Your task to perform on an android device: check android version Image 0: 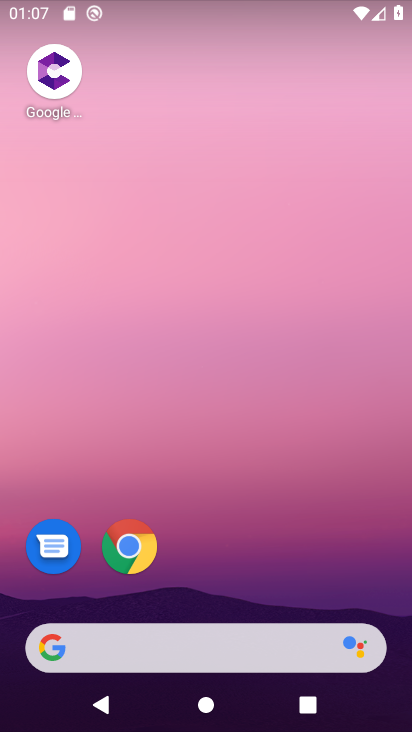
Step 0: drag from (253, 582) to (235, 74)
Your task to perform on an android device: check android version Image 1: 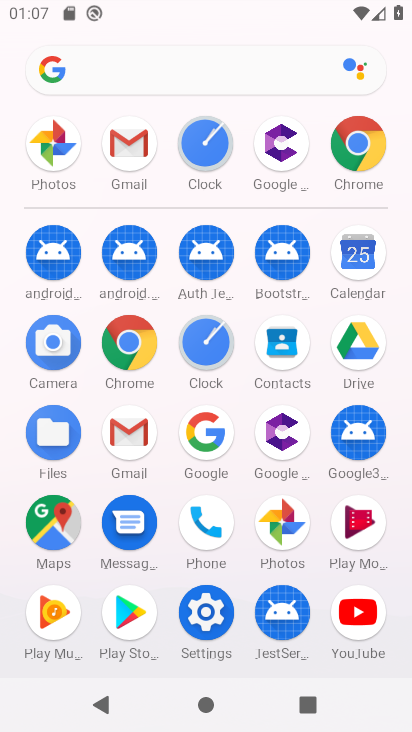
Step 1: click (197, 602)
Your task to perform on an android device: check android version Image 2: 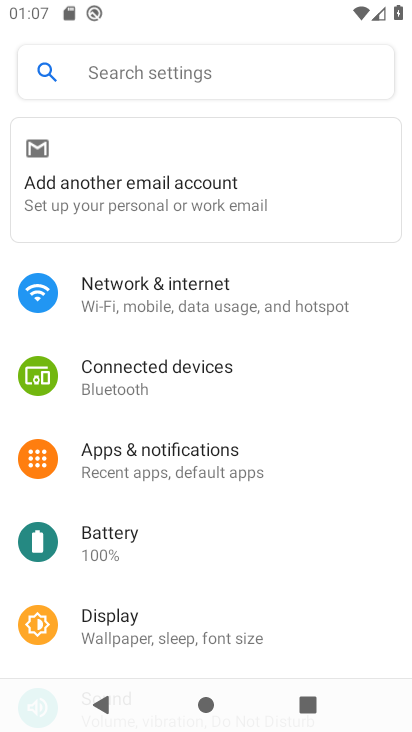
Step 2: drag from (174, 579) to (71, 289)
Your task to perform on an android device: check android version Image 3: 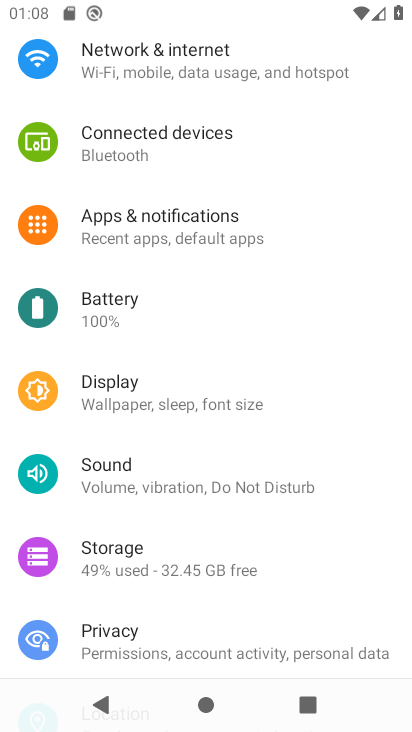
Step 3: drag from (185, 590) to (163, 437)
Your task to perform on an android device: check android version Image 4: 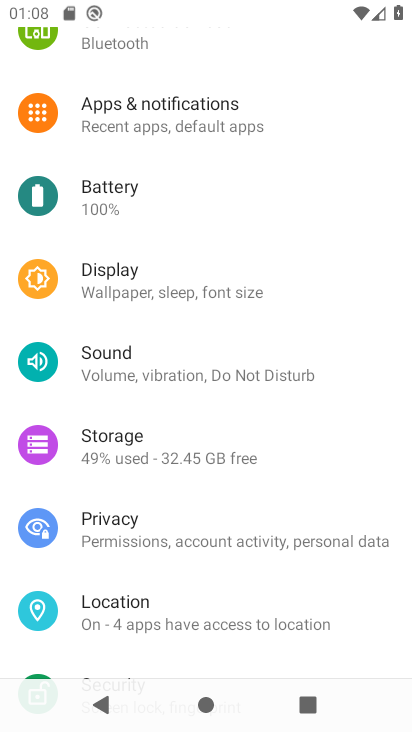
Step 4: drag from (206, 604) to (161, 336)
Your task to perform on an android device: check android version Image 5: 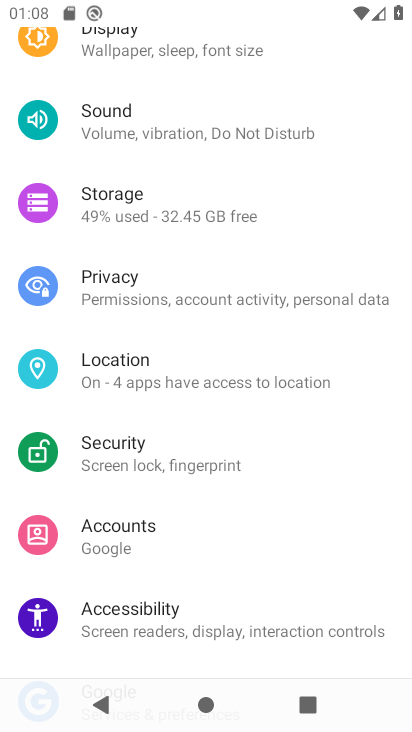
Step 5: drag from (176, 598) to (135, 329)
Your task to perform on an android device: check android version Image 6: 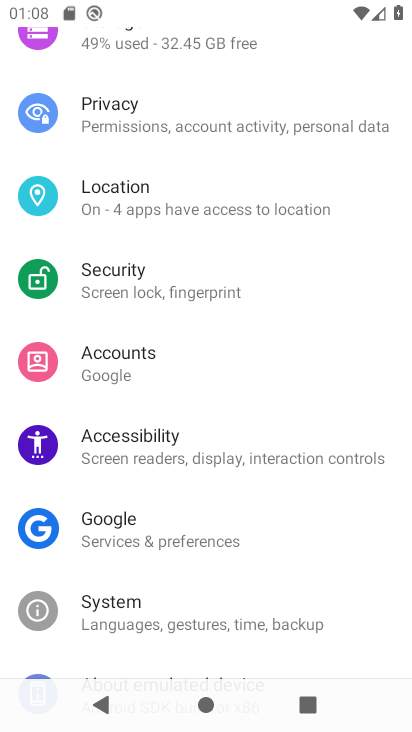
Step 6: drag from (204, 603) to (182, 504)
Your task to perform on an android device: check android version Image 7: 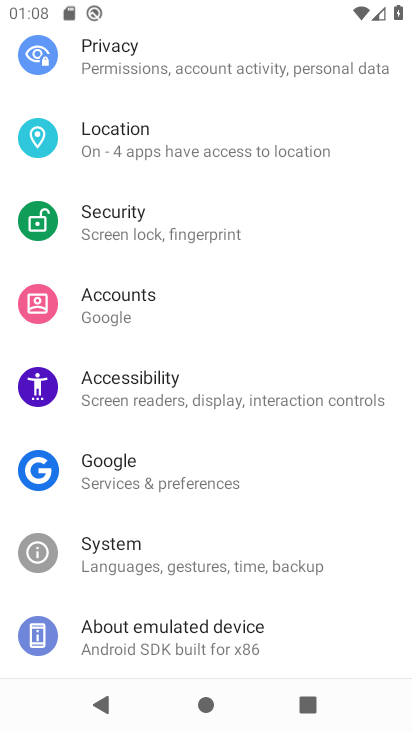
Step 7: click (201, 623)
Your task to perform on an android device: check android version Image 8: 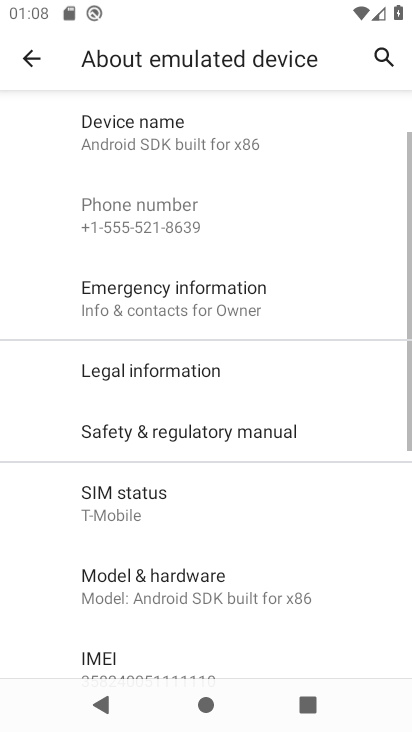
Step 8: drag from (229, 603) to (78, 184)
Your task to perform on an android device: check android version Image 9: 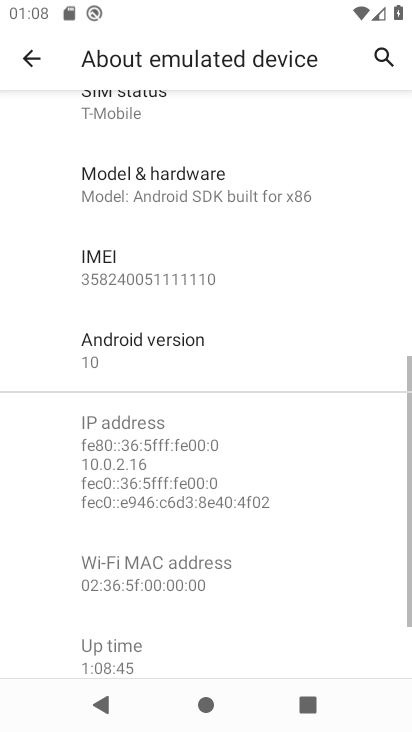
Step 9: click (210, 372)
Your task to perform on an android device: check android version Image 10: 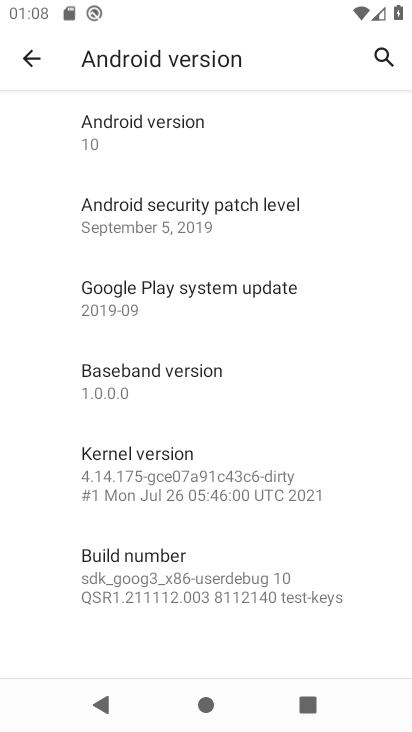
Step 10: click (210, 106)
Your task to perform on an android device: check android version Image 11: 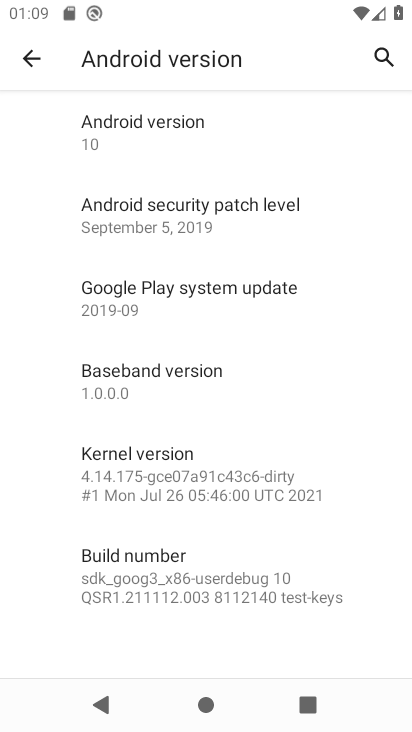
Step 11: task complete